Your task to perform on an android device: change timer sound Image 0: 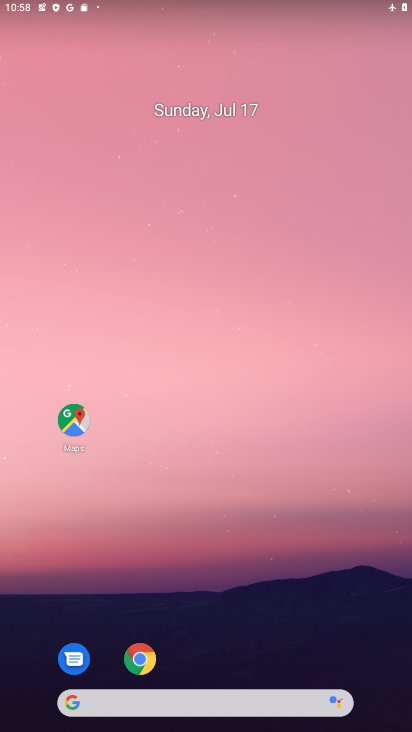
Step 0: click (219, 10)
Your task to perform on an android device: change timer sound Image 1: 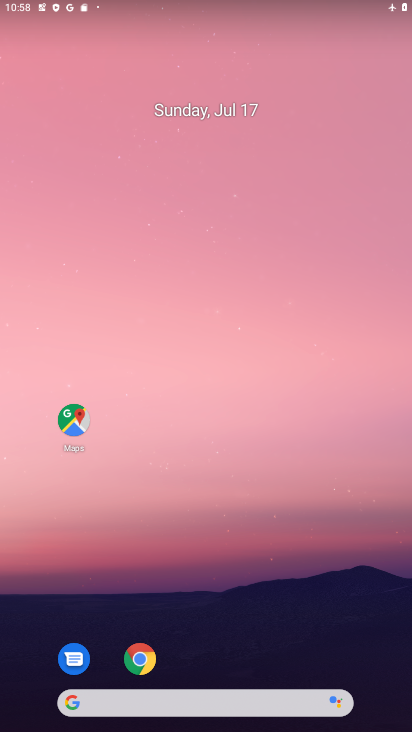
Step 1: drag from (231, 633) to (333, 11)
Your task to perform on an android device: change timer sound Image 2: 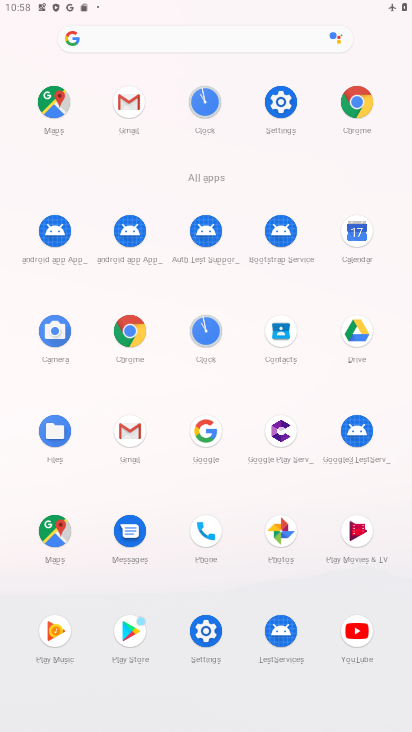
Step 2: click (212, 99)
Your task to perform on an android device: change timer sound Image 3: 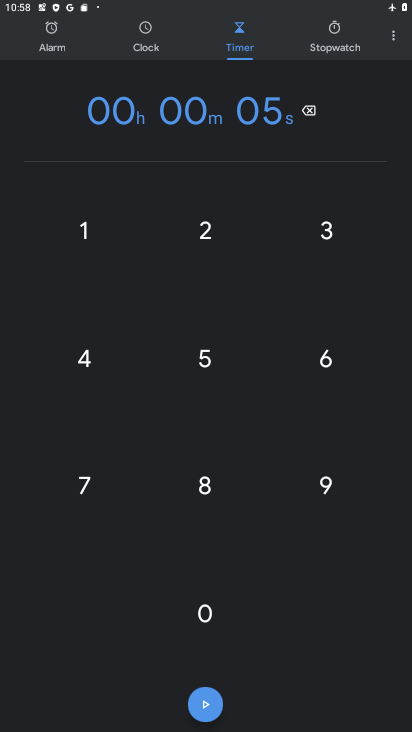
Step 3: click (399, 38)
Your task to perform on an android device: change timer sound Image 4: 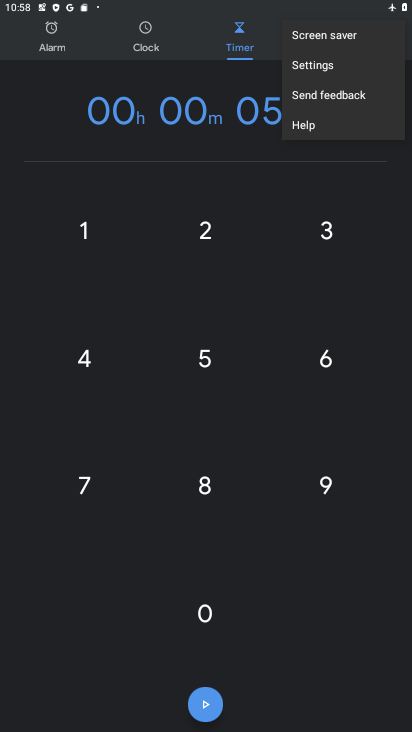
Step 4: click (318, 67)
Your task to perform on an android device: change timer sound Image 5: 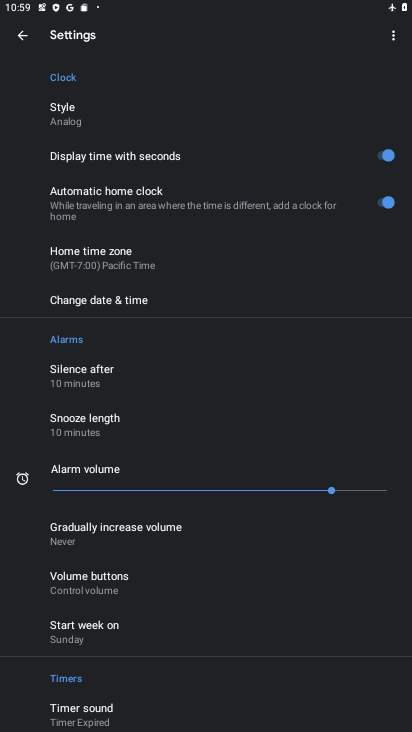
Step 5: click (78, 719)
Your task to perform on an android device: change timer sound Image 6: 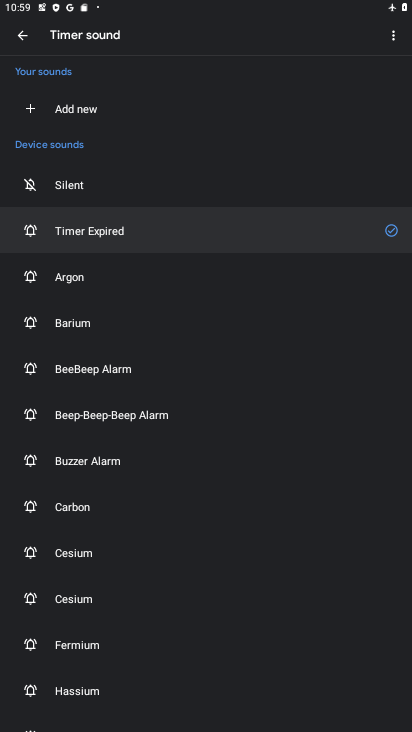
Step 6: task complete